Your task to perform on an android device: Show me productivity apps on the Play Store Image 0: 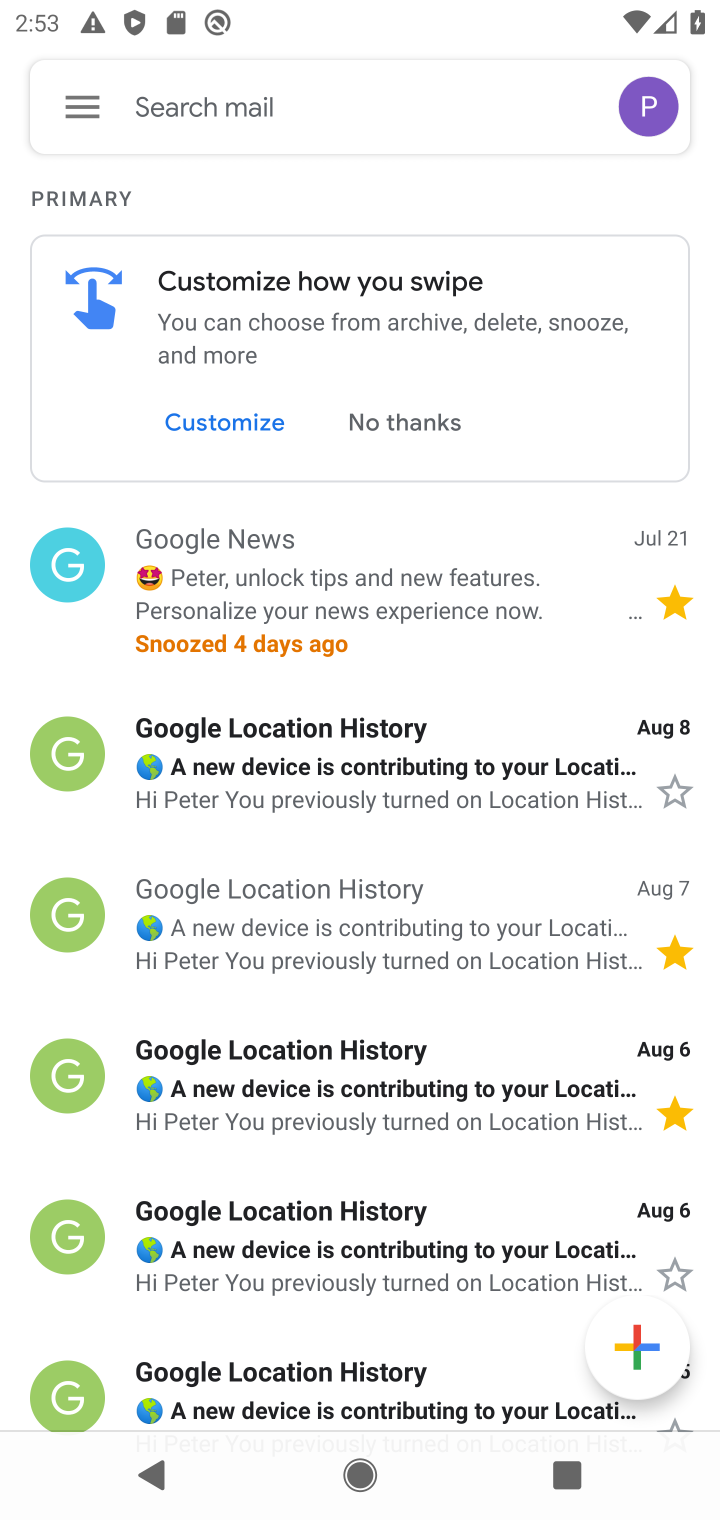
Step 0: press home button
Your task to perform on an android device: Show me productivity apps on the Play Store Image 1: 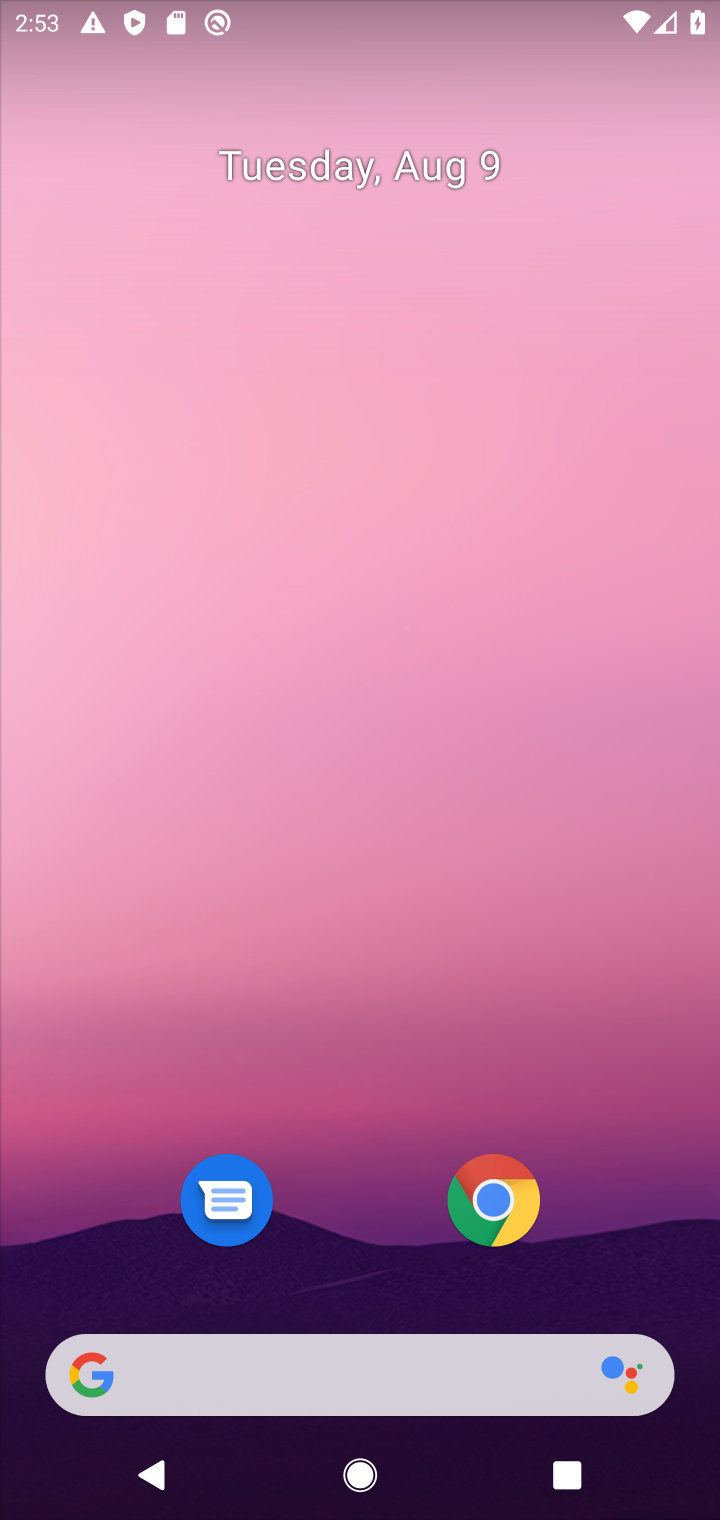
Step 1: drag from (326, 1309) to (495, 181)
Your task to perform on an android device: Show me productivity apps on the Play Store Image 2: 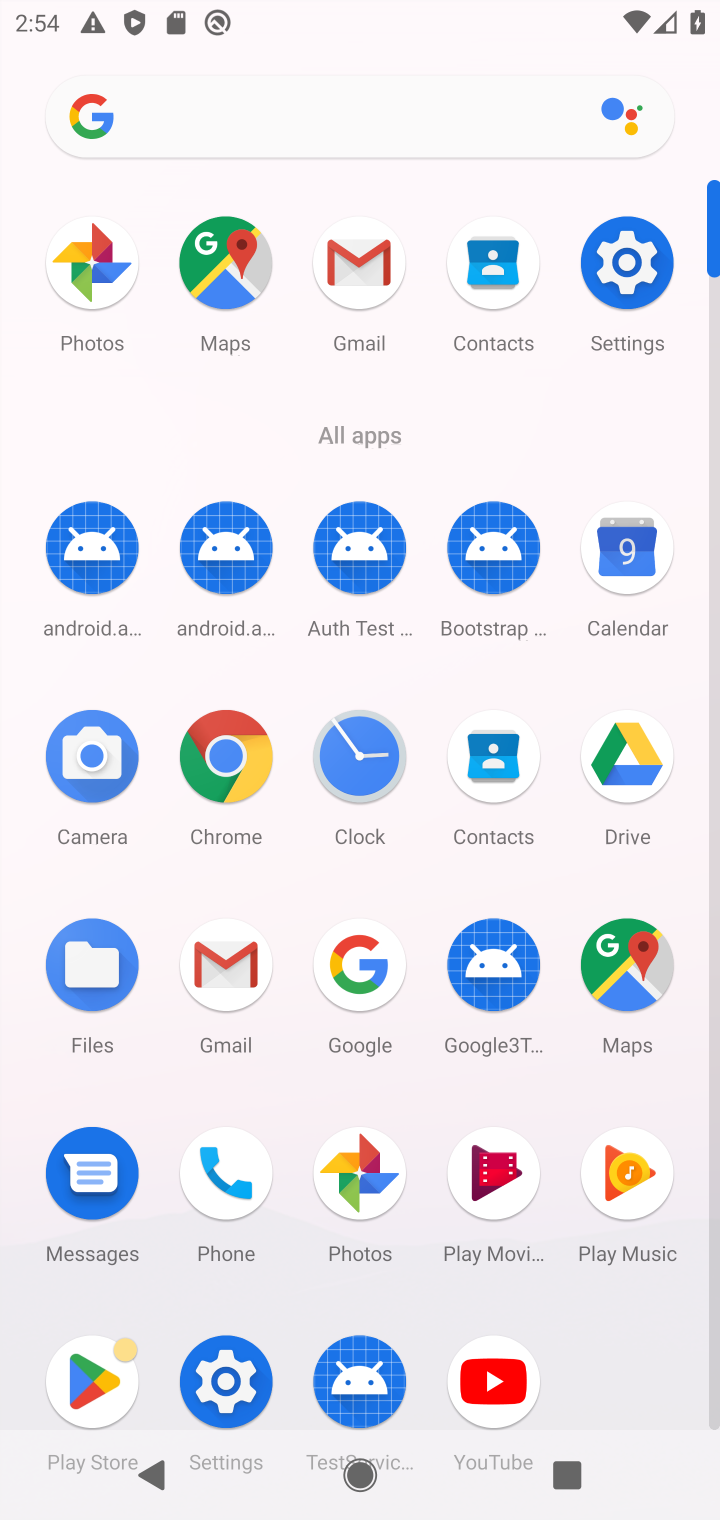
Step 2: click (49, 1393)
Your task to perform on an android device: Show me productivity apps on the Play Store Image 3: 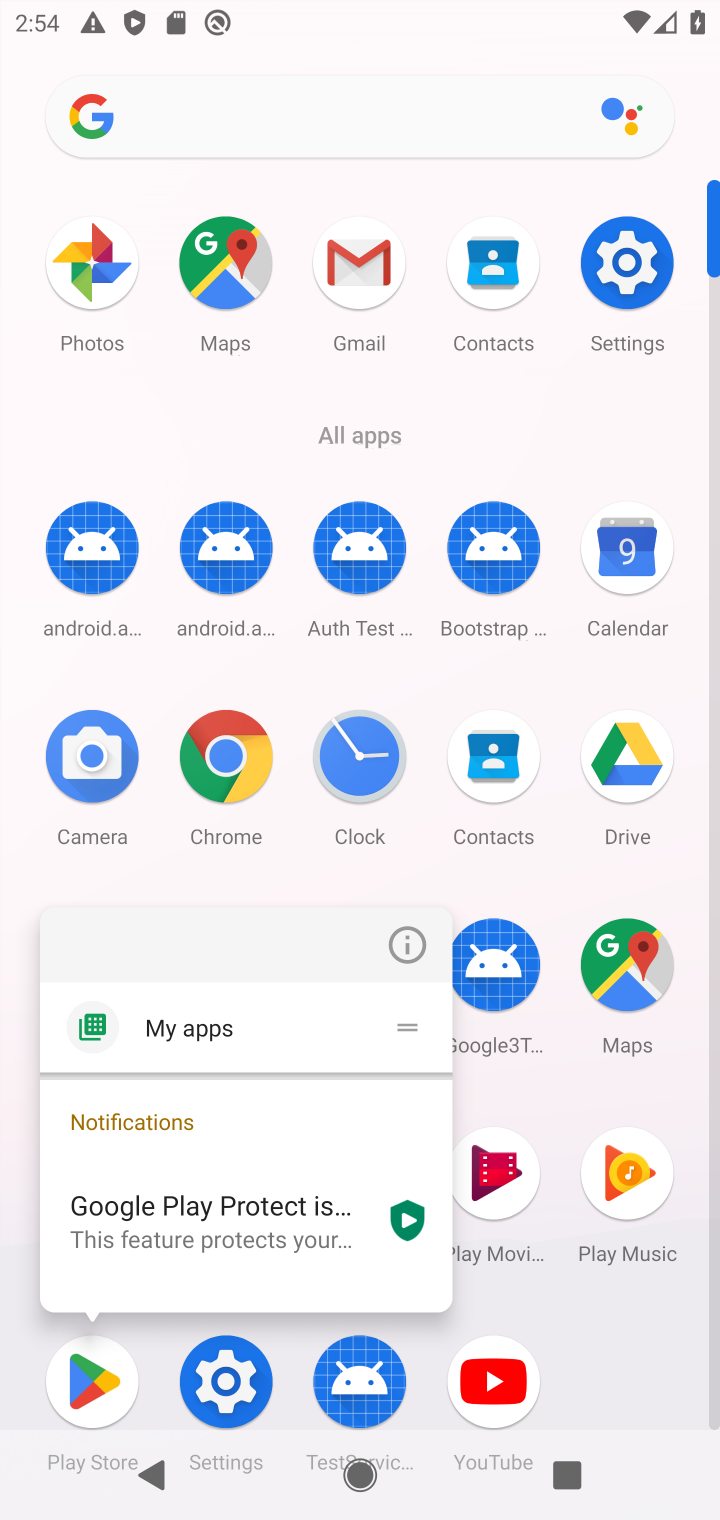
Step 3: click (49, 1393)
Your task to perform on an android device: Show me productivity apps on the Play Store Image 4: 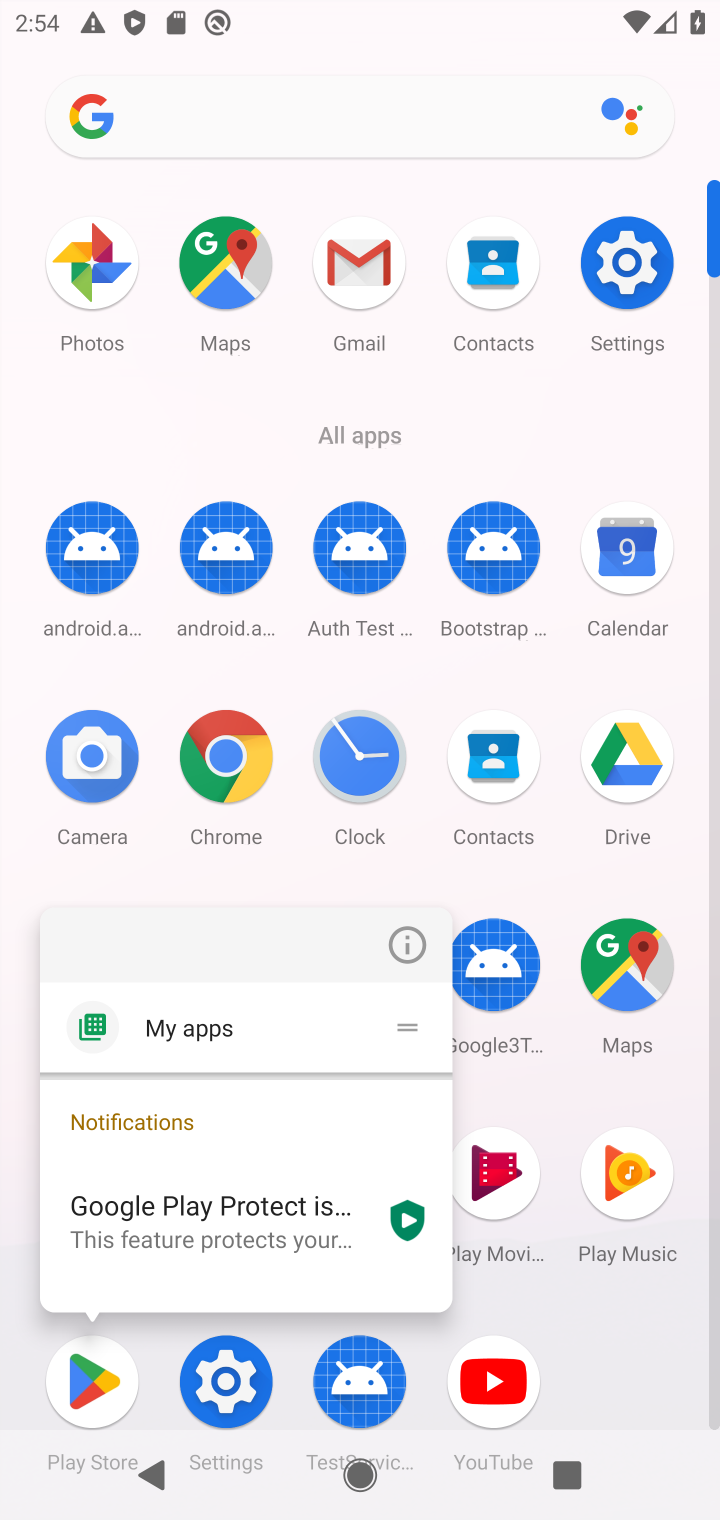
Step 4: click (78, 1390)
Your task to perform on an android device: Show me productivity apps on the Play Store Image 5: 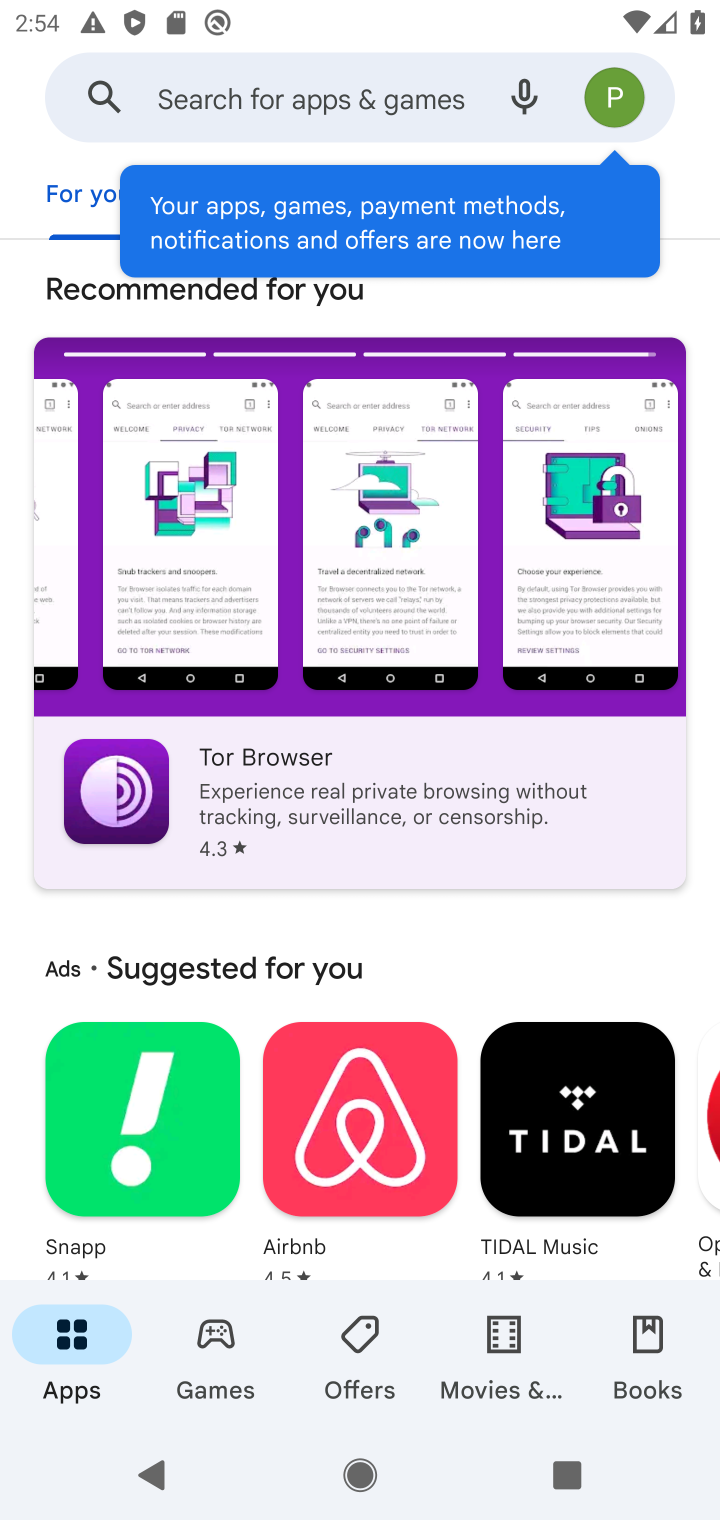
Step 5: click (266, 229)
Your task to perform on an android device: Show me productivity apps on the Play Store Image 6: 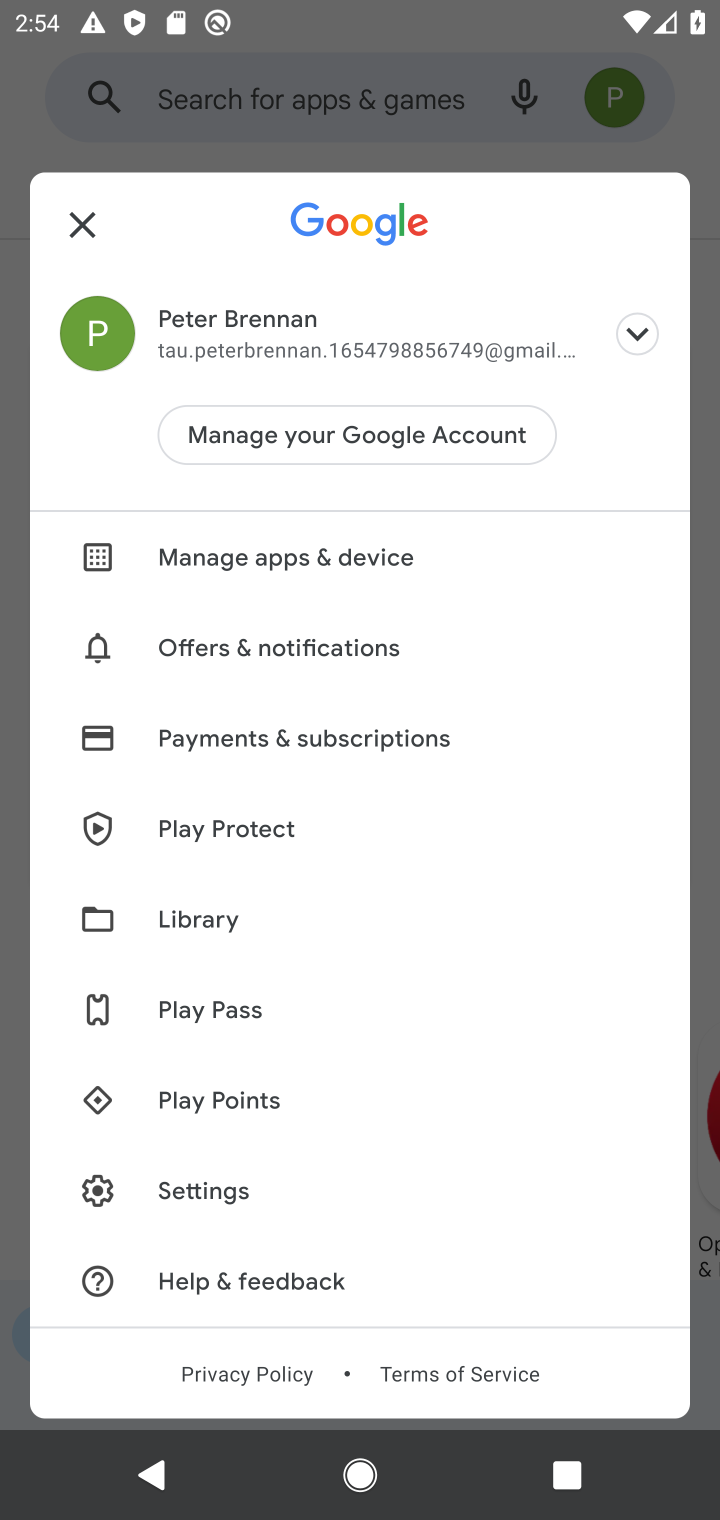
Step 6: click (430, 188)
Your task to perform on an android device: Show me productivity apps on the Play Store Image 7: 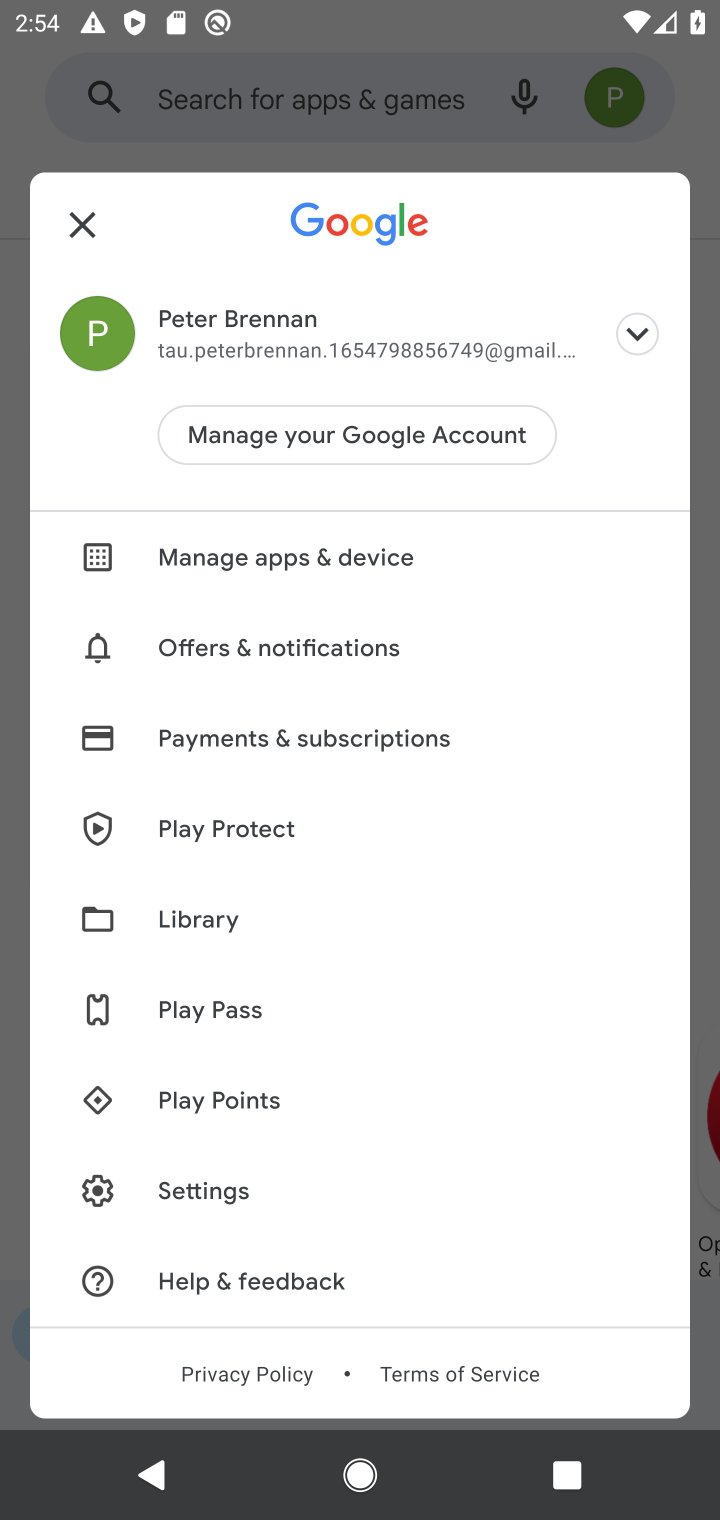
Step 7: click (450, 138)
Your task to perform on an android device: Show me productivity apps on the Play Store Image 8: 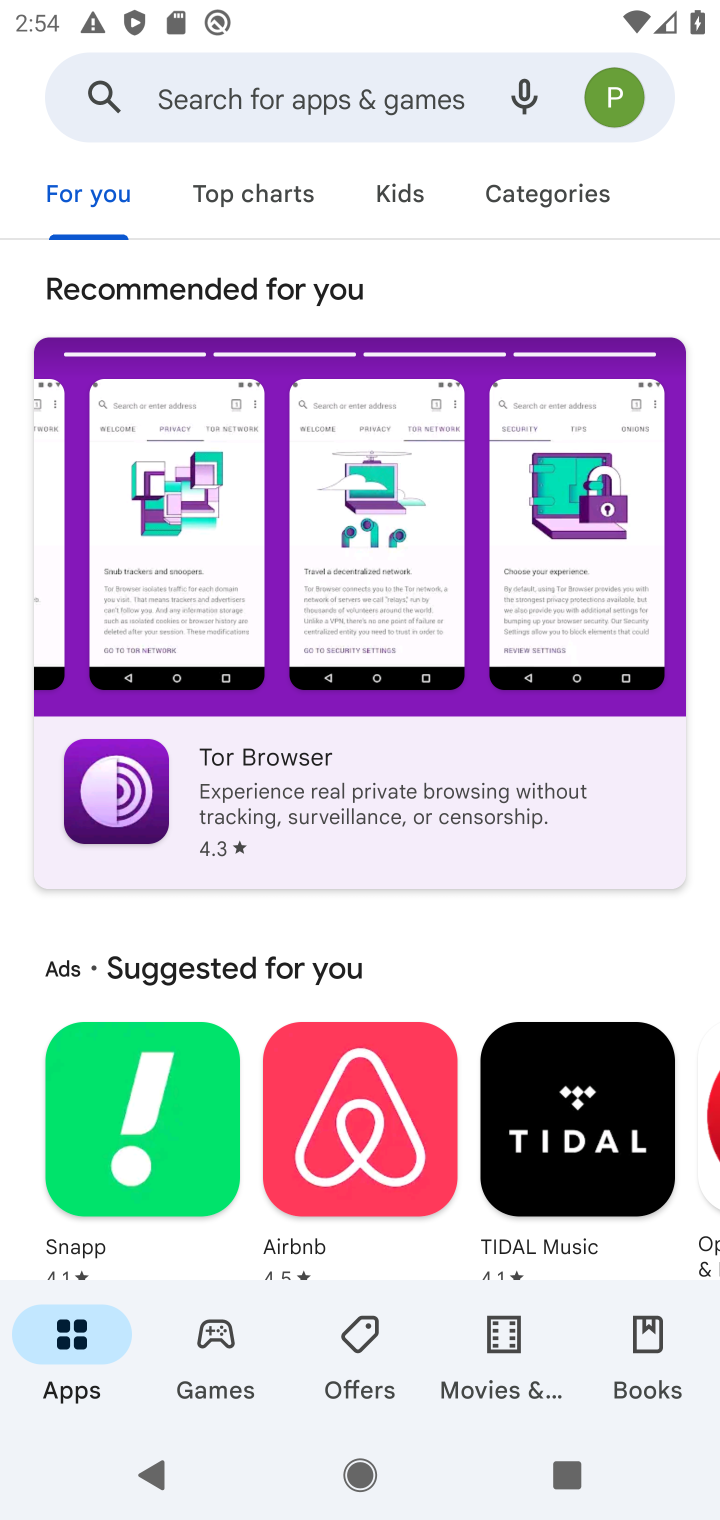
Step 8: click (554, 210)
Your task to perform on an android device: Show me productivity apps on the Play Store Image 9: 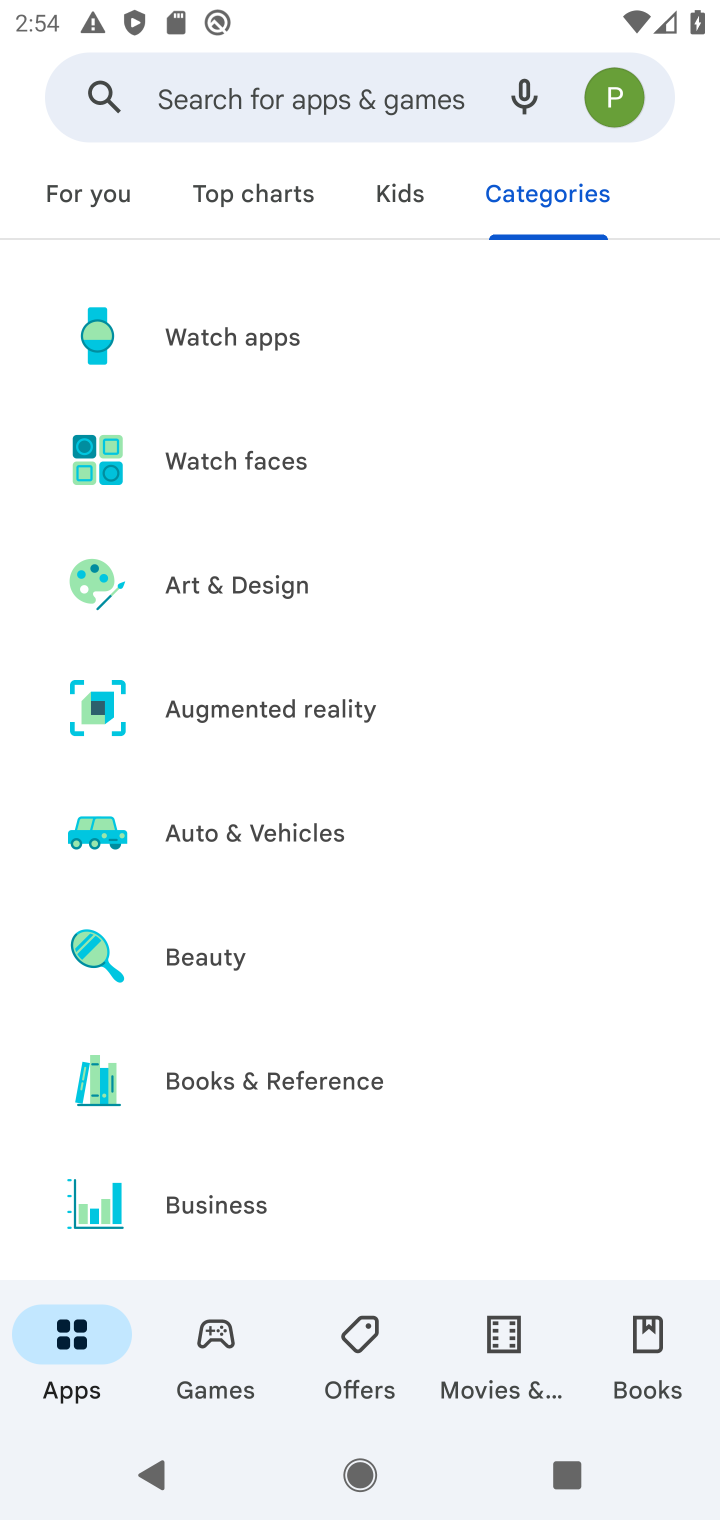
Step 9: drag from (158, 1083) to (143, 470)
Your task to perform on an android device: Show me productivity apps on the Play Store Image 10: 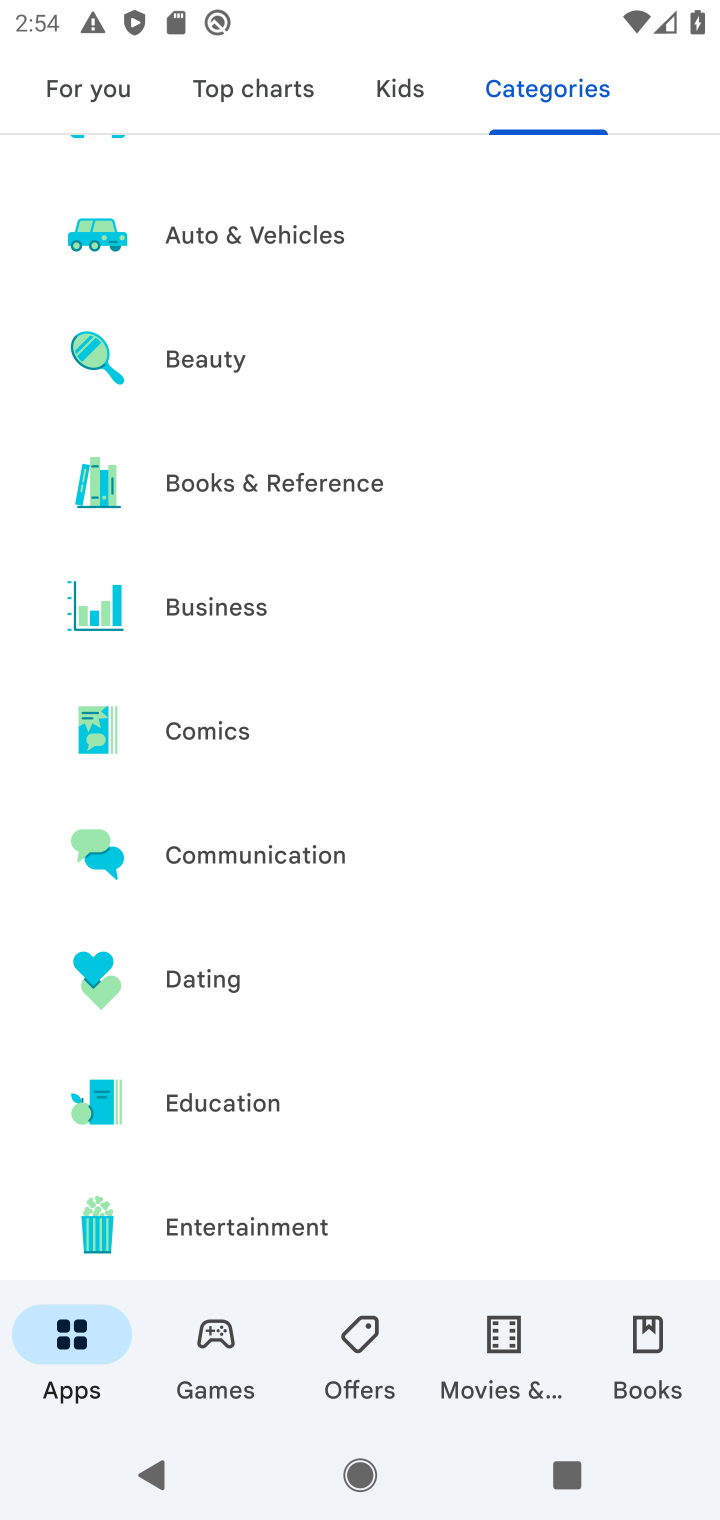
Step 10: drag from (245, 1078) to (273, 483)
Your task to perform on an android device: Show me productivity apps on the Play Store Image 11: 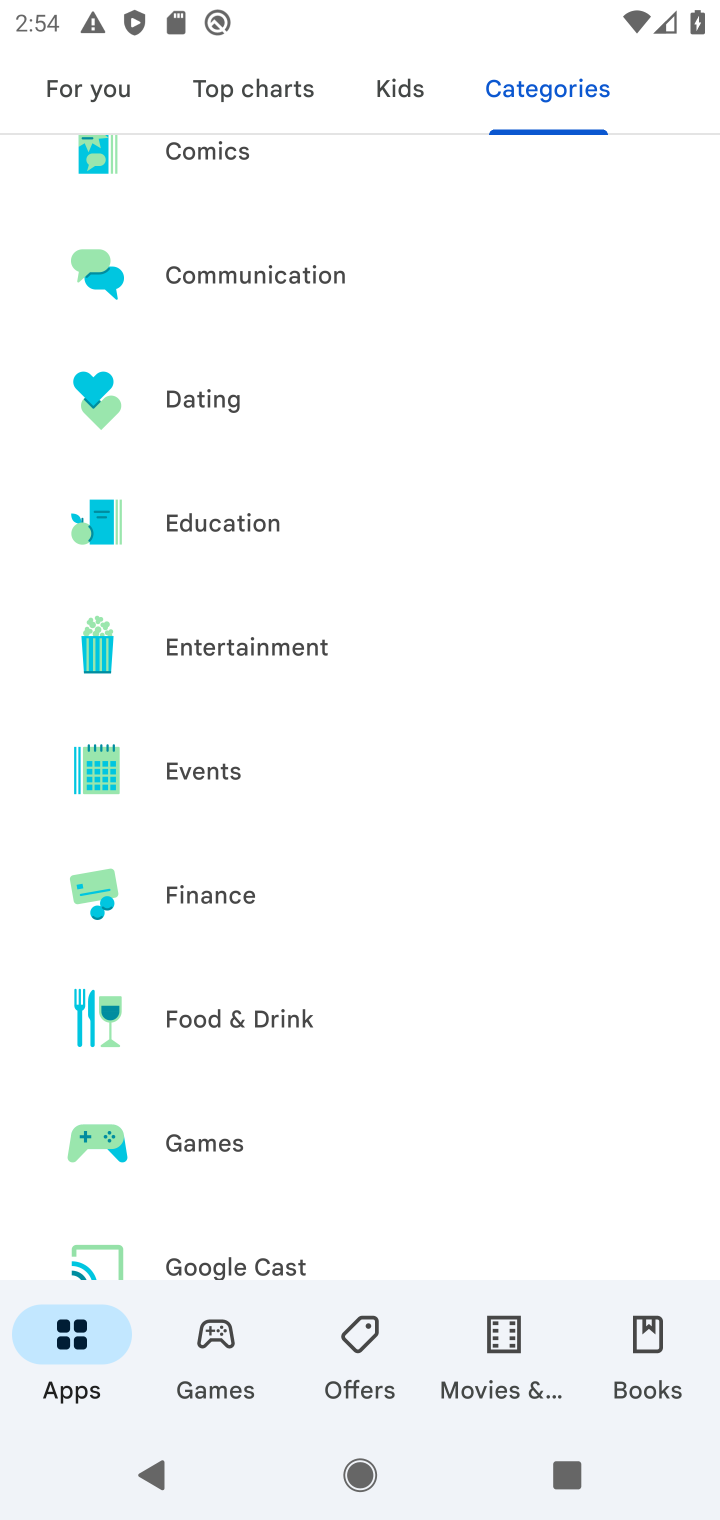
Step 11: drag from (382, 1105) to (362, 462)
Your task to perform on an android device: Show me productivity apps on the Play Store Image 12: 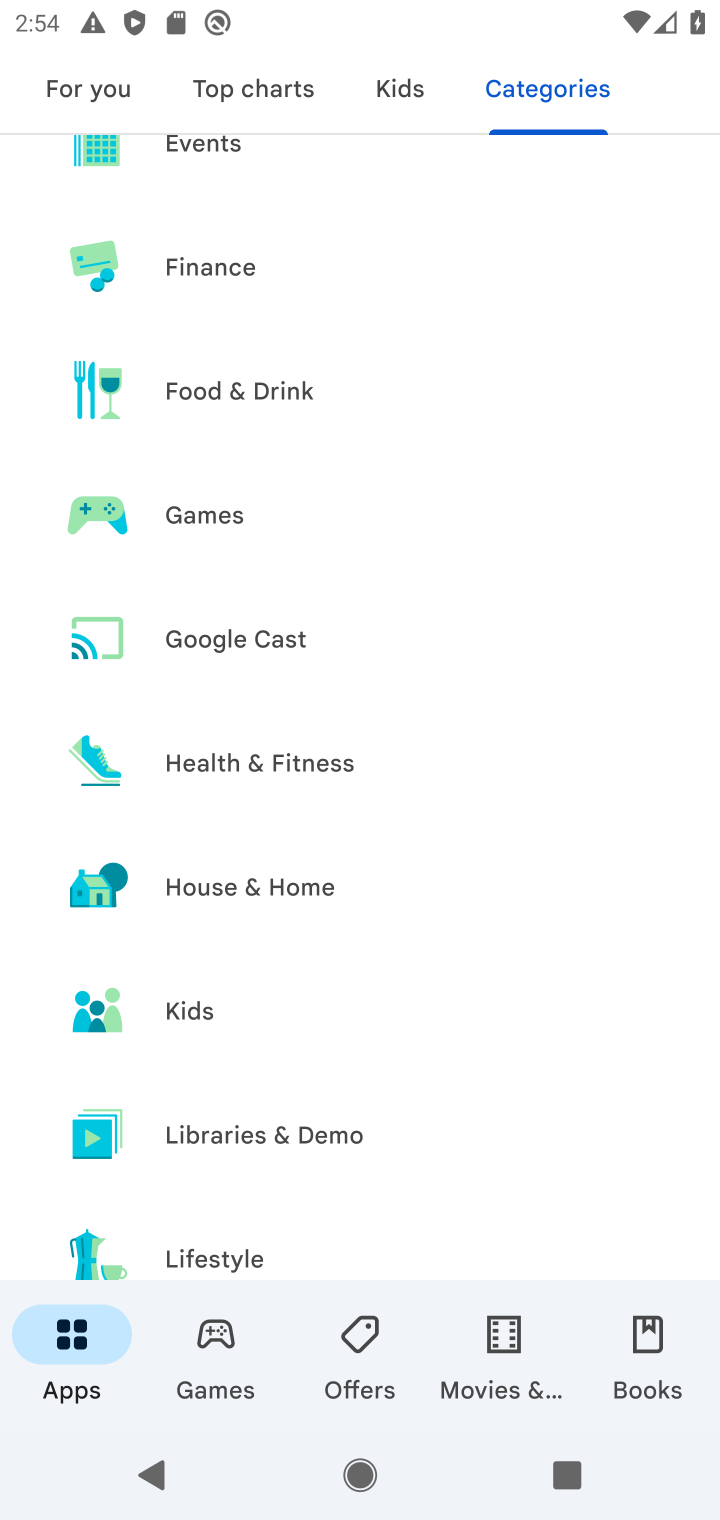
Step 12: drag from (458, 1058) to (418, 323)
Your task to perform on an android device: Show me productivity apps on the Play Store Image 13: 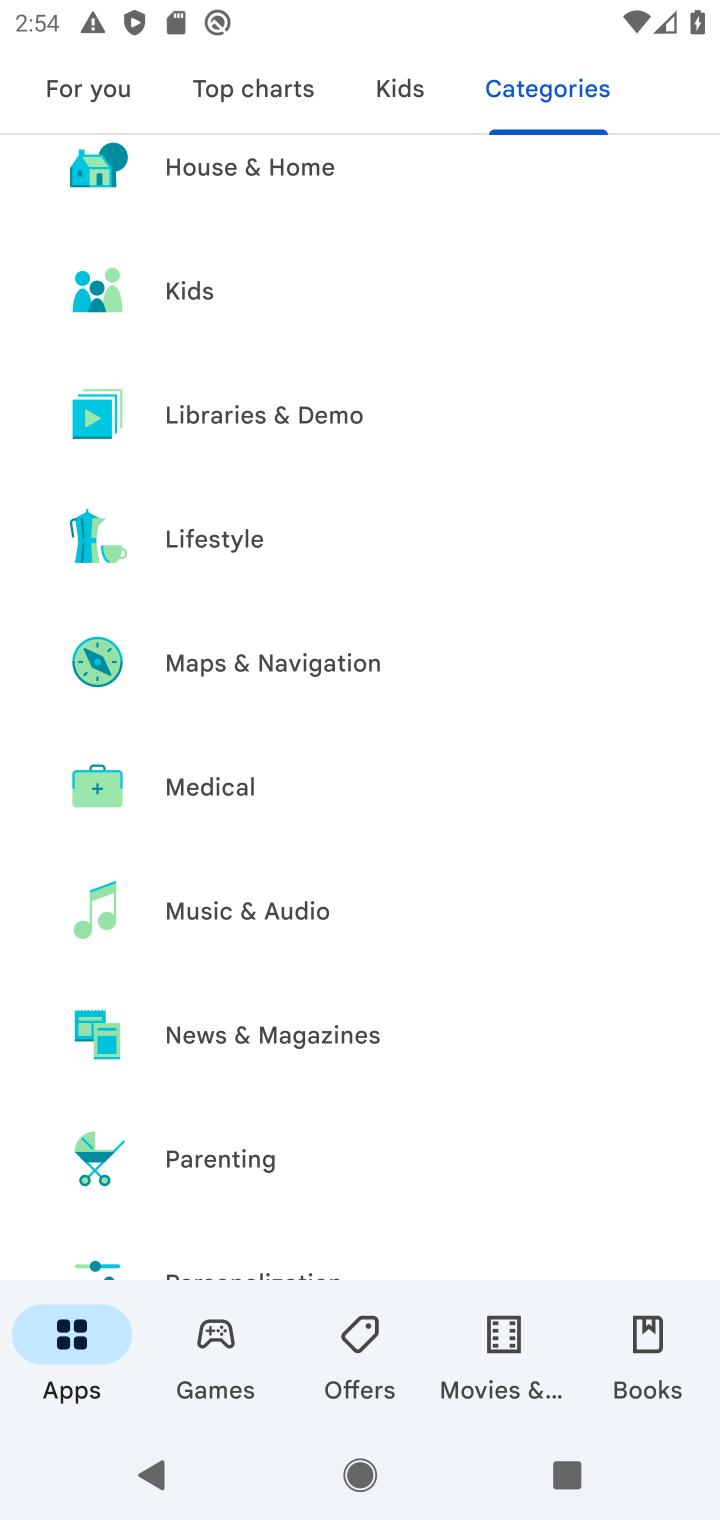
Step 13: drag from (305, 1164) to (308, 853)
Your task to perform on an android device: Show me productivity apps on the Play Store Image 14: 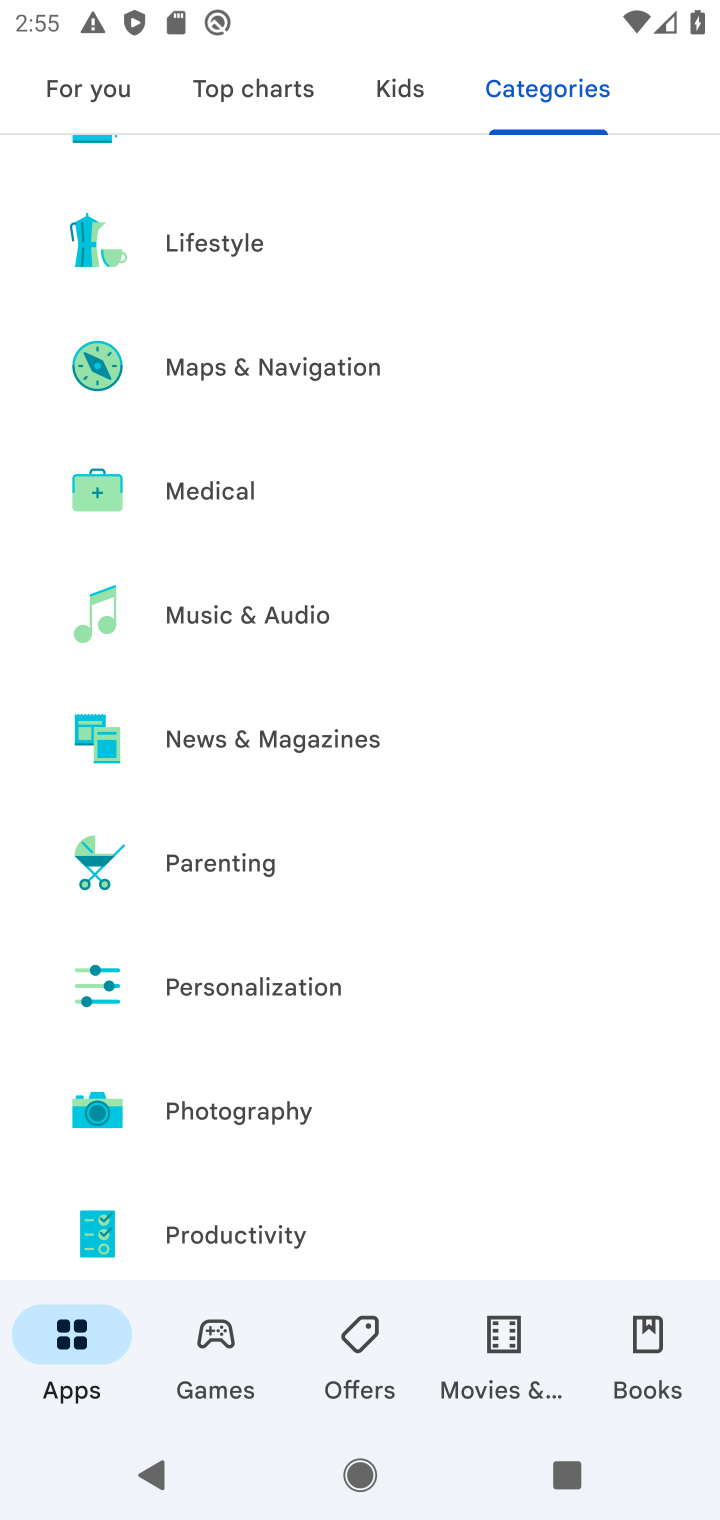
Step 14: click (328, 1224)
Your task to perform on an android device: Show me productivity apps on the Play Store Image 15: 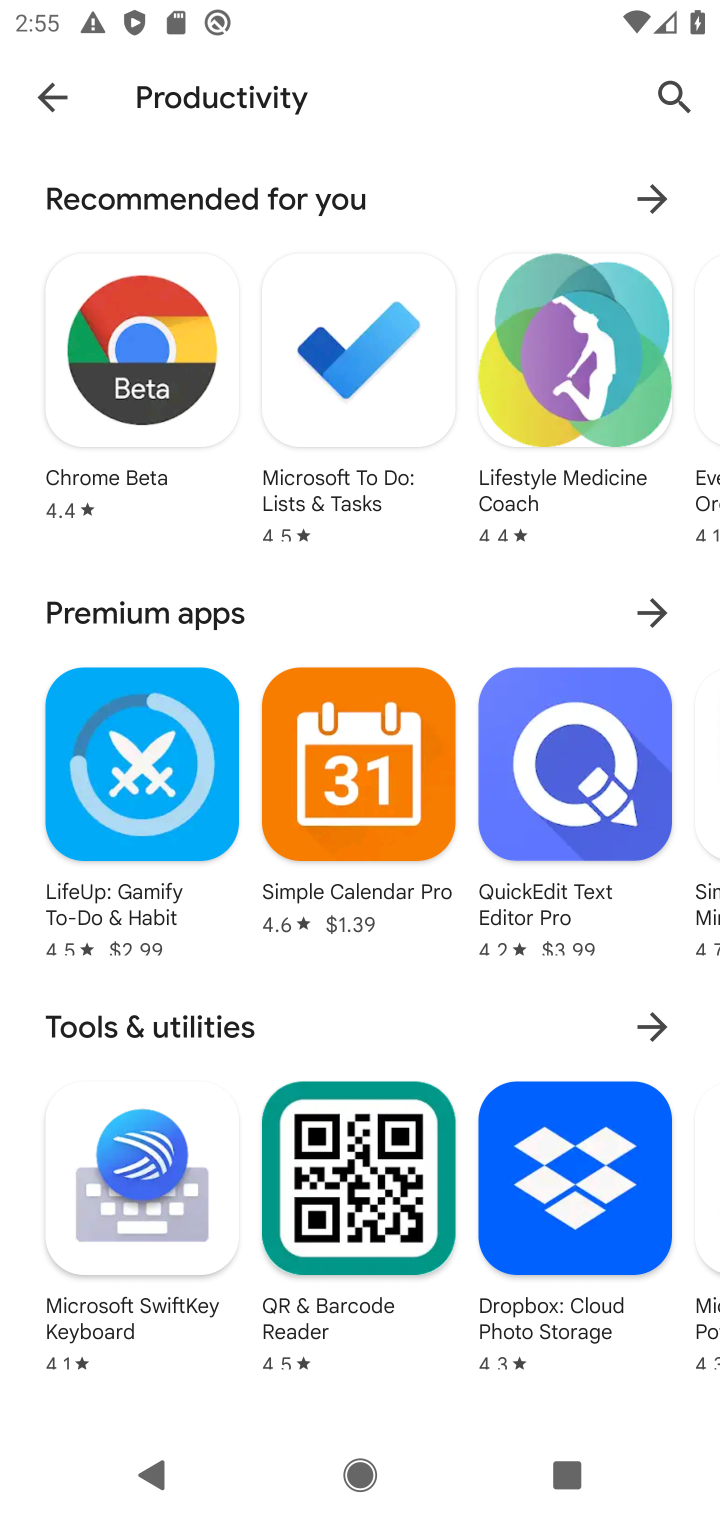
Step 15: task complete